Your task to perform on an android device: Open internet settings Image 0: 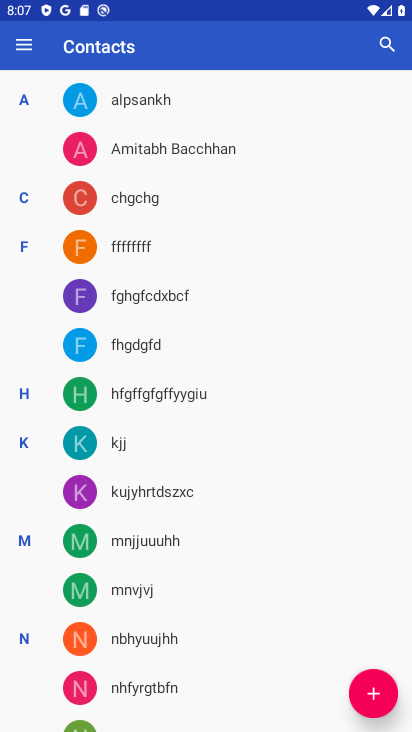
Step 0: press home button
Your task to perform on an android device: Open internet settings Image 1: 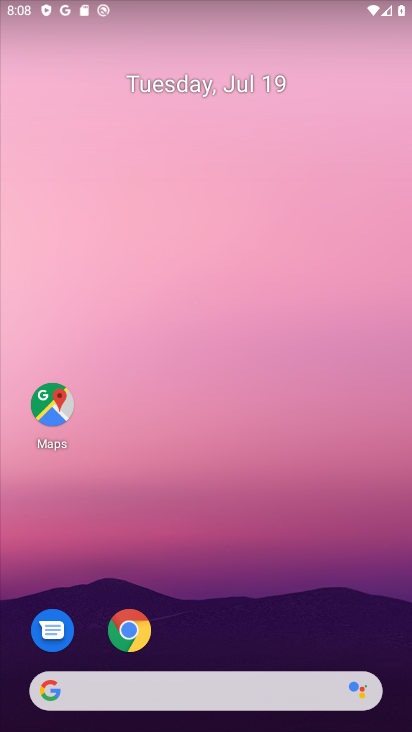
Step 1: drag from (254, 635) to (238, 121)
Your task to perform on an android device: Open internet settings Image 2: 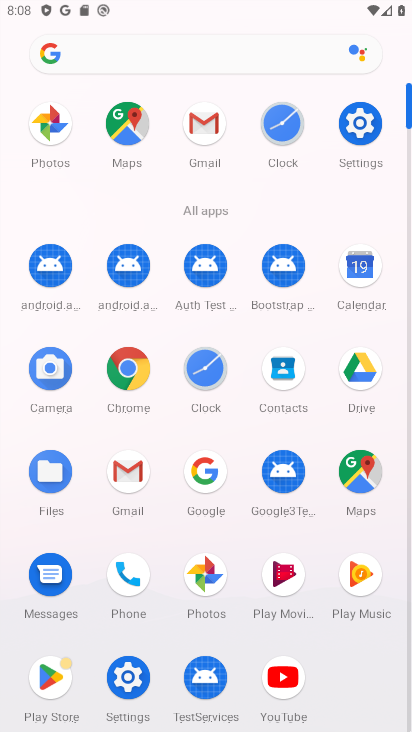
Step 2: click (354, 127)
Your task to perform on an android device: Open internet settings Image 3: 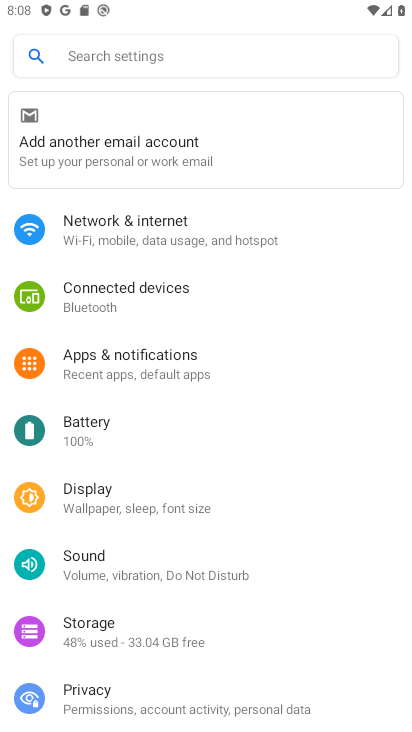
Step 3: click (186, 223)
Your task to perform on an android device: Open internet settings Image 4: 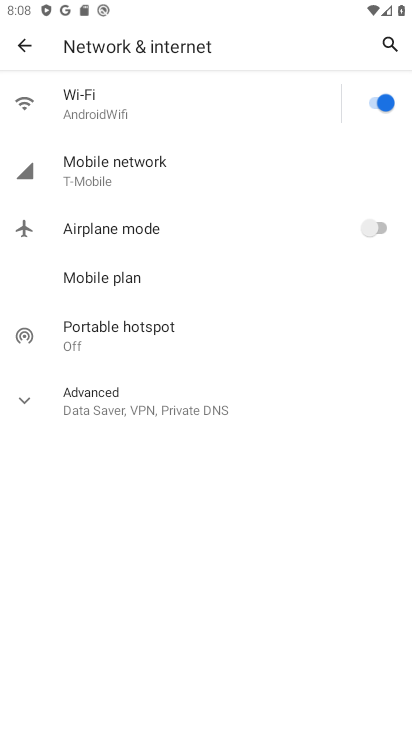
Step 4: click (168, 158)
Your task to perform on an android device: Open internet settings Image 5: 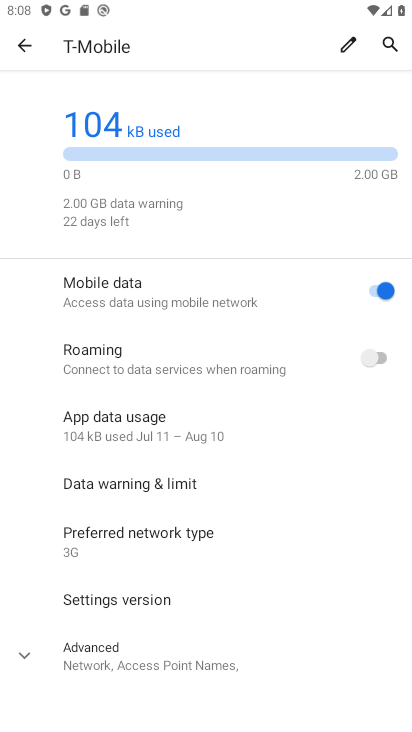
Step 5: task complete